Your task to perform on an android device: Search for sushi restaurants on Maps Image 0: 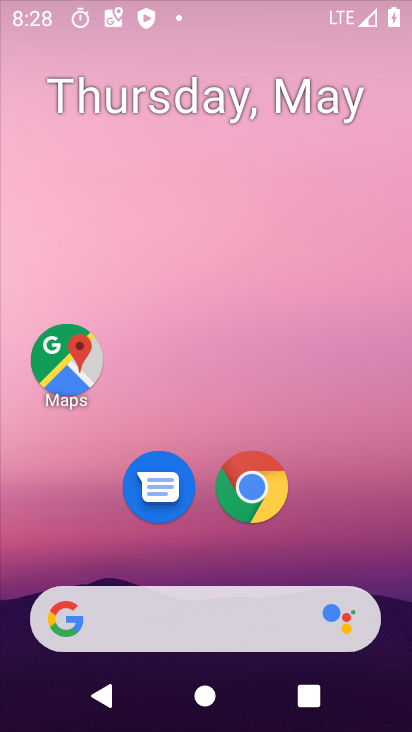
Step 0: drag from (202, 572) to (291, 53)
Your task to perform on an android device: Search for sushi restaurants on Maps Image 1: 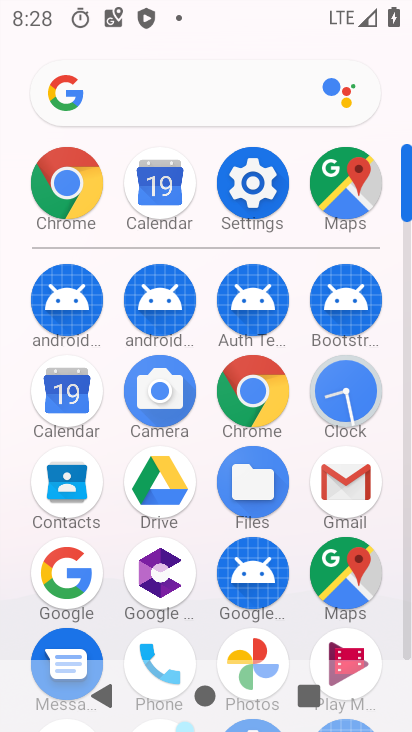
Step 1: click (347, 558)
Your task to perform on an android device: Search for sushi restaurants on Maps Image 2: 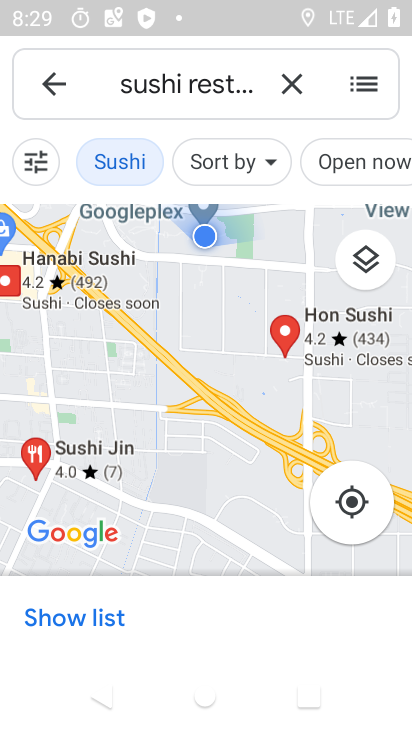
Step 2: task complete